Your task to perform on an android device: choose inbox layout in the gmail app Image 0: 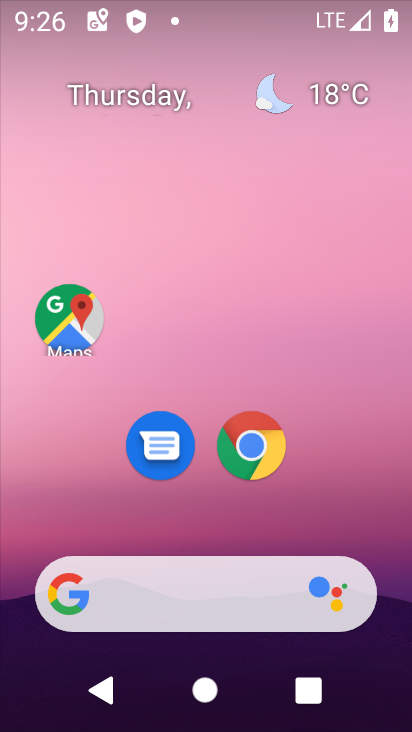
Step 0: drag from (403, 572) to (337, 200)
Your task to perform on an android device: choose inbox layout in the gmail app Image 1: 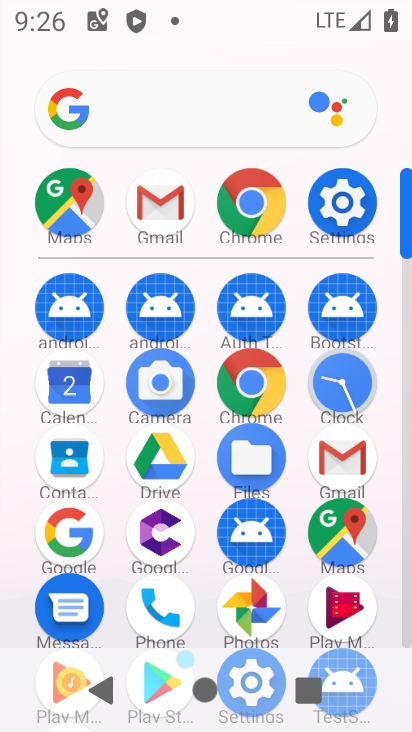
Step 1: click (168, 206)
Your task to perform on an android device: choose inbox layout in the gmail app Image 2: 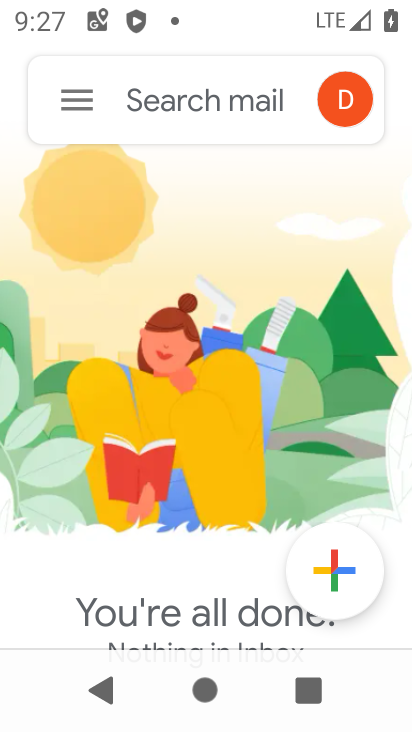
Step 2: click (77, 109)
Your task to perform on an android device: choose inbox layout in the gmail app Image 3: 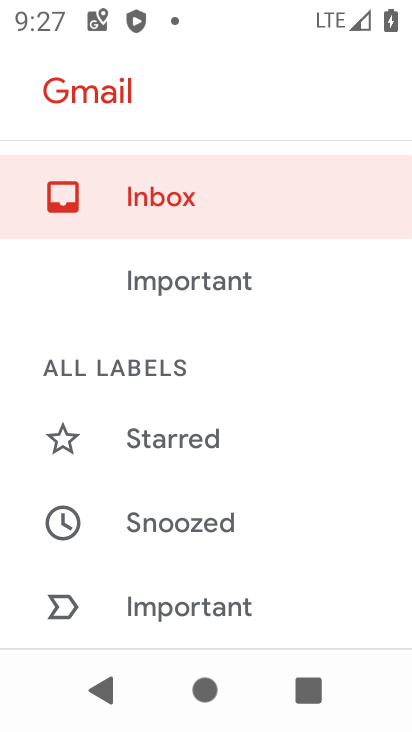
Step 3: drag from (284, 572) to (259, 203)
Your task to perform on an android device: choose inbox layout in the gmail app Image 4: 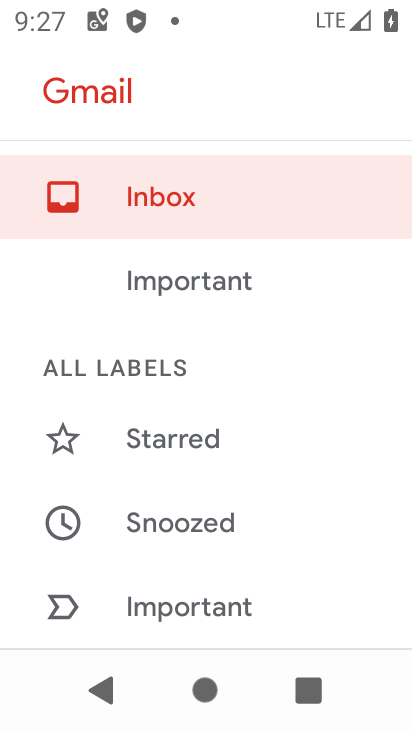
Step 4: drag from (277, 618) to (195, 189)
Your task to perform on an android device: choose inbox layout in the gmail app Image 5: 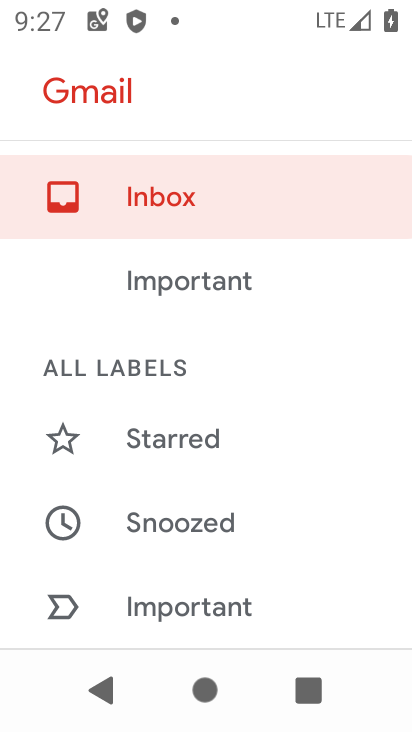
Step 5: drag from (161, 554) to (120, 62)
Your task to perform on an android device: choose inbox layout in the gmail app Image 6: 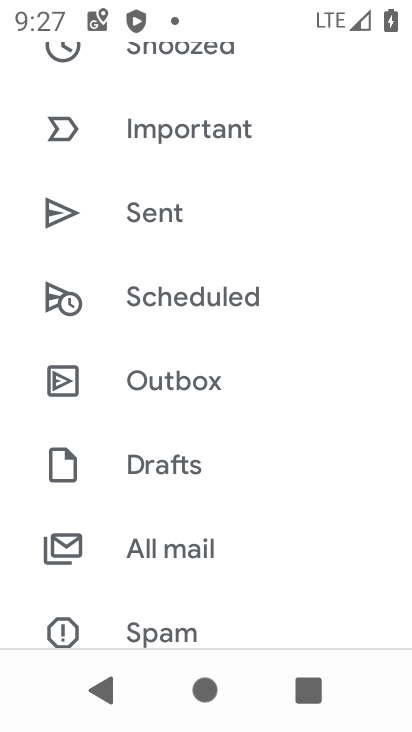
Step 6: drag from (181, 598) to (120, 38)
Your task to perform on an android device: choose inbox layout in the gmail app Image 7: 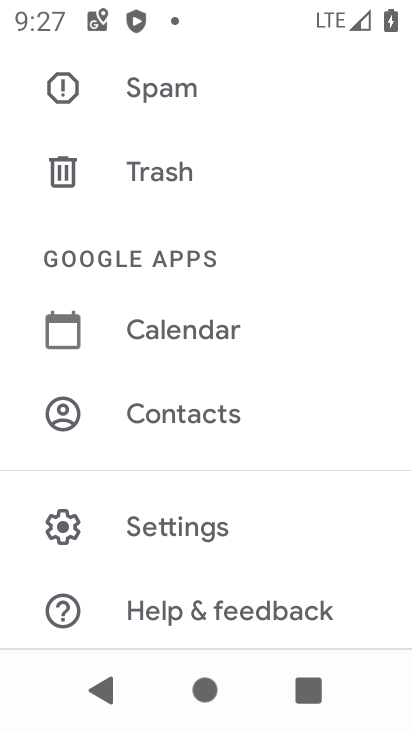
Step 7: click (172, 514)
Your task to perform on an android device: choose inbox layout in the gmail app Image 8: 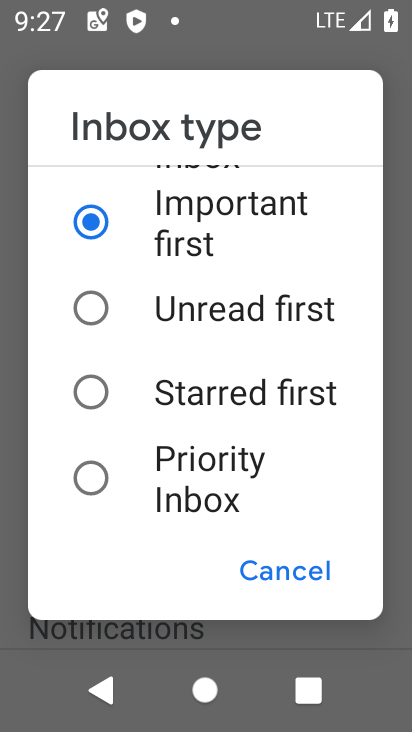
Step 8: click (211, 404)
Your task to perform on an android device: choose inbox layout in the gmail app Image 9: 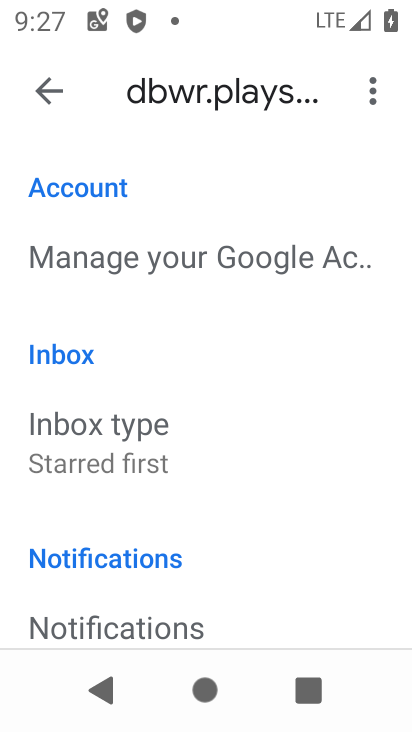
Step 9: task complete